Your task to perform on an android device: Open the music app Image 0: 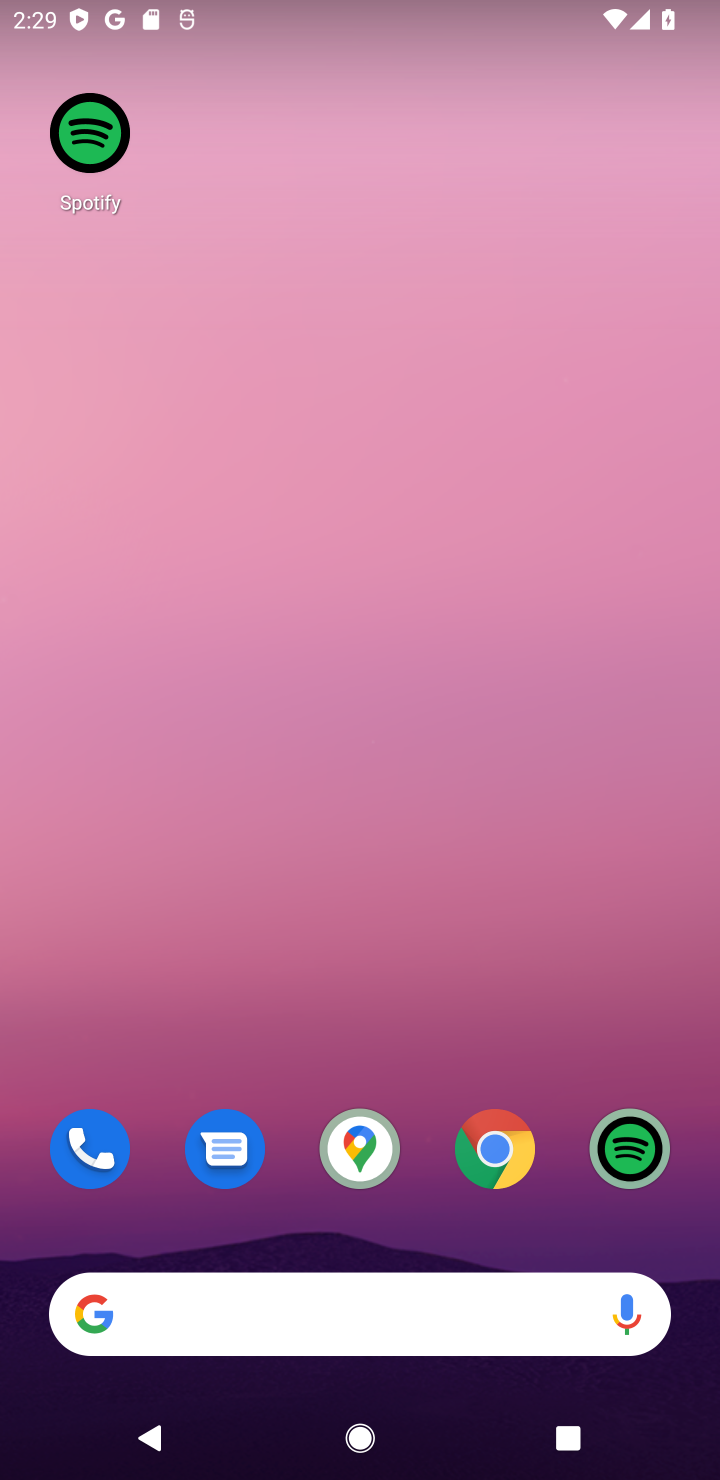
Step 0: click (605, 1141)
Your task to perform on an android device: Open the music app Image 1: 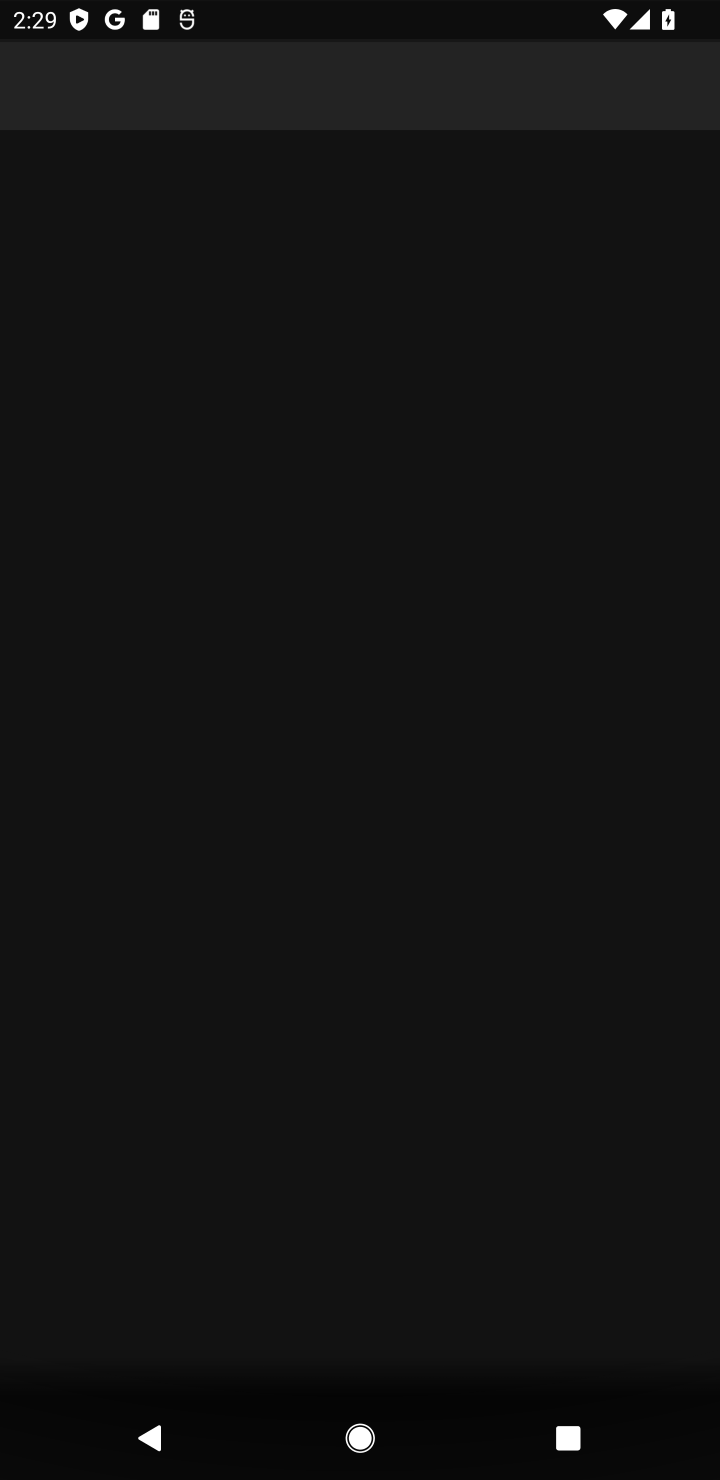
Step 1: task complete